Your task to perform on an android device: Do I have any events tomorrow? Image 0: 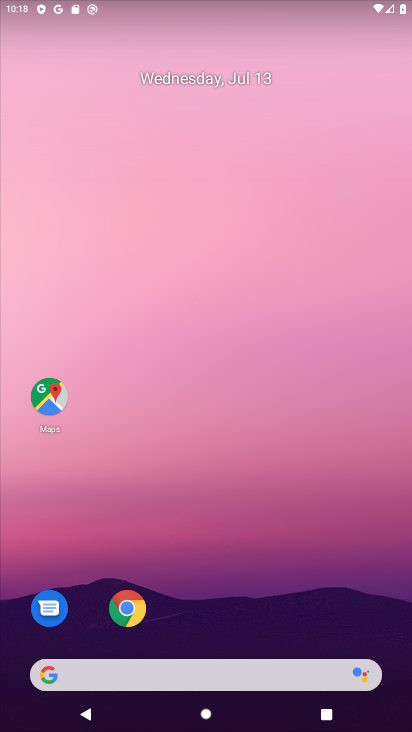
Step 0: drag from (258, 596) to (289, 0)
Your task to perform on an android device: Do I have any events tomorrow? Image 1: 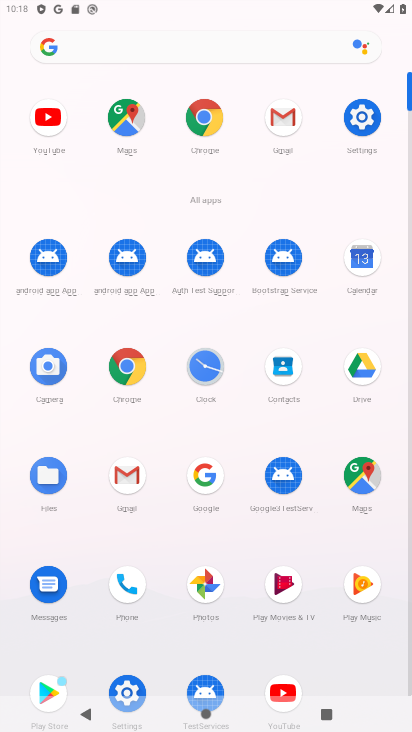
Step 1: click (359, 255)
Your task to perform on an android device: Do I have any events tomorrow? Image 2: 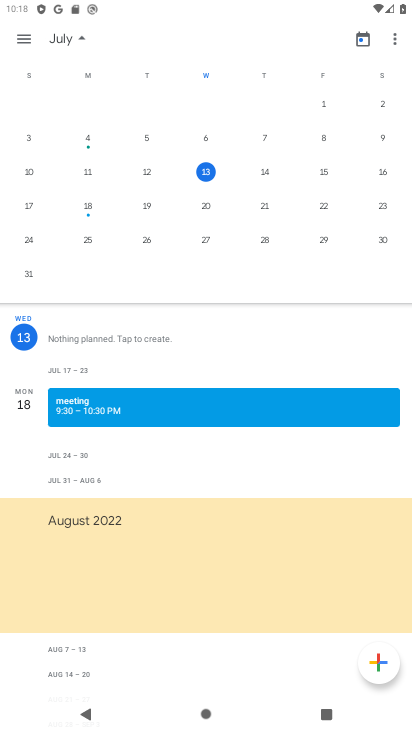
Step 2: click (263, 176)
Your task to perform on an android device: Do I have any events tomorrow? Image 3: 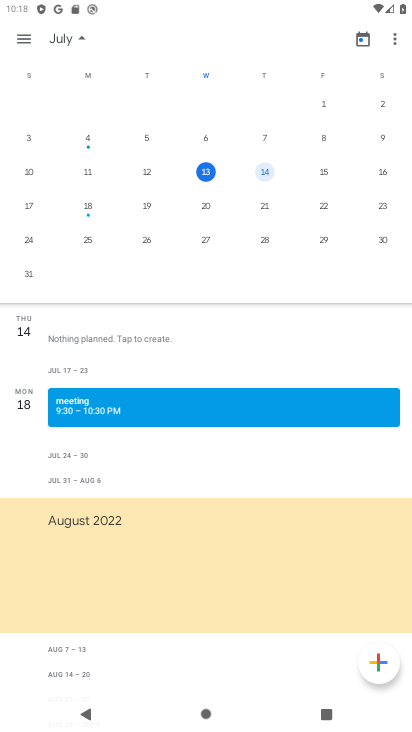
Step 3: task complete